Your task to perform on an android device: Search for pizza restaurants on Maps Image 0: 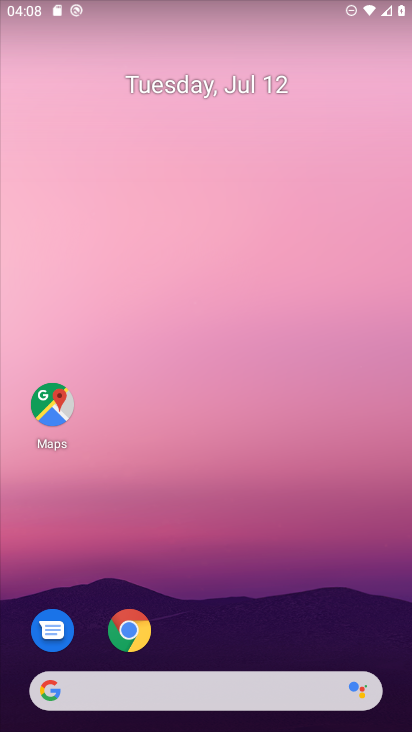
Step 0: click (51, 406)
Your task to perform on an android device: Search for pizza restaurants on Maps Image 1: 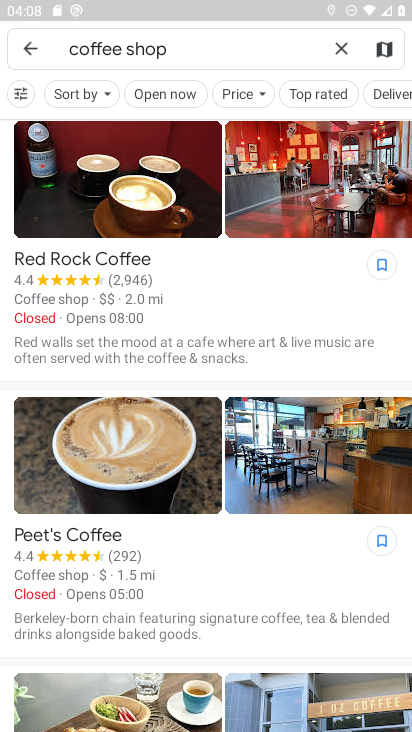
Step 1: click (341, 45)
Your task to perform on an android device: Search for pizza restaurants on Maps Image 2: 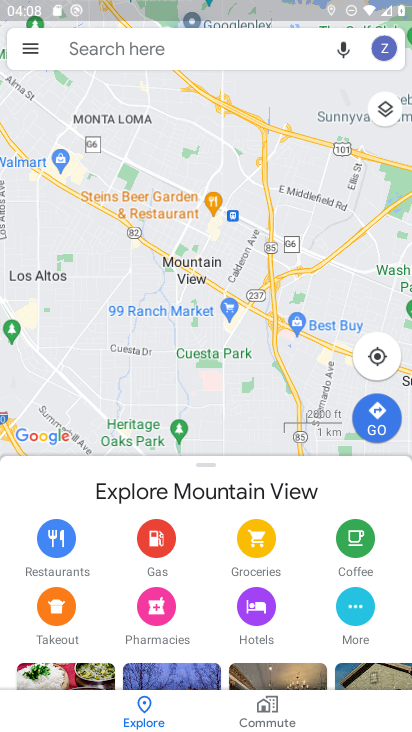
Step 2: click (103, 52)
Your task to perform on an android device: Search for pizza restaurants on Maps Image 3: 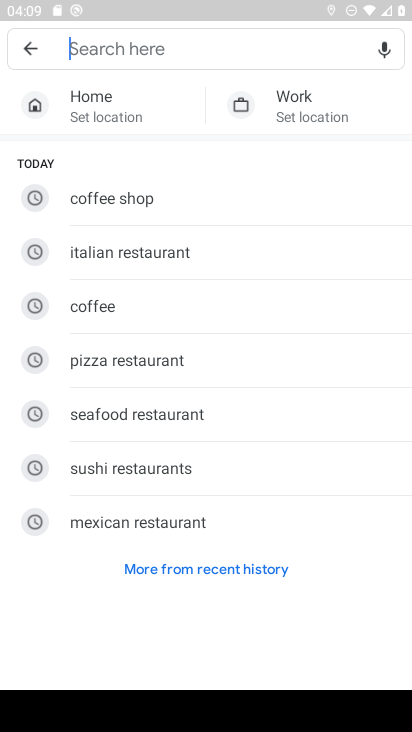
Step 3: type "pizza restaurants"
Your task to perform on an android device: Search for pizza restaurants on Maps Image 4: 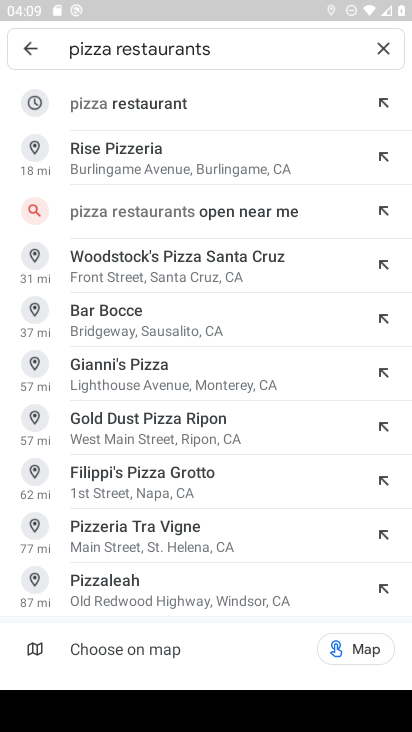
Step 4: click (105, 101)
Your task to perform on an android device: Search for pizza restaurants on Maps Image 5: 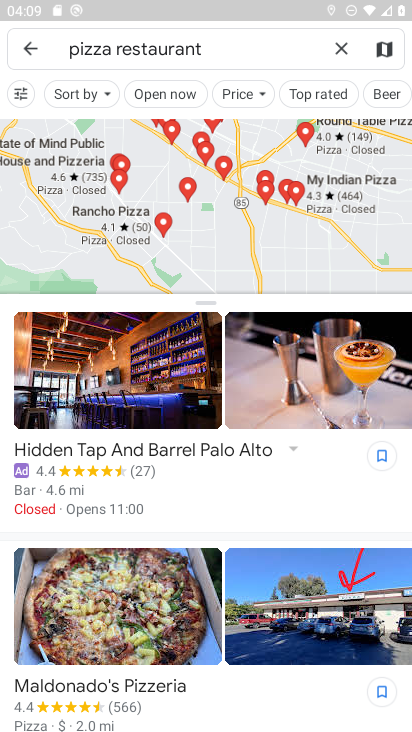
Step 5: task complete